Your task to perform on an android device: visit the assistant section in the google photos Image 0: 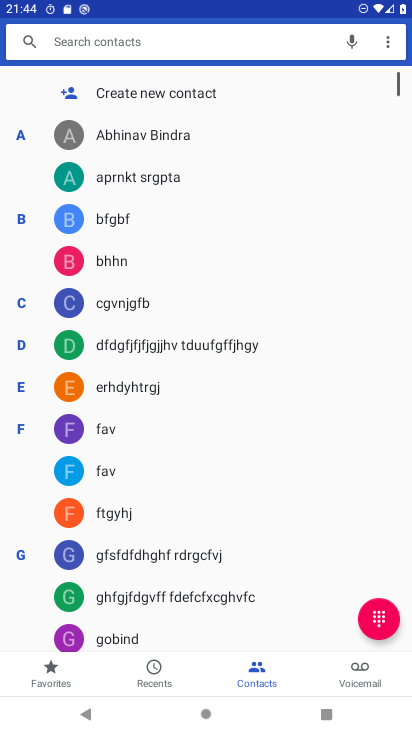
Step 0: press home button
Your task to perform on an android device: visit the assistant section in the google photos Image 1: 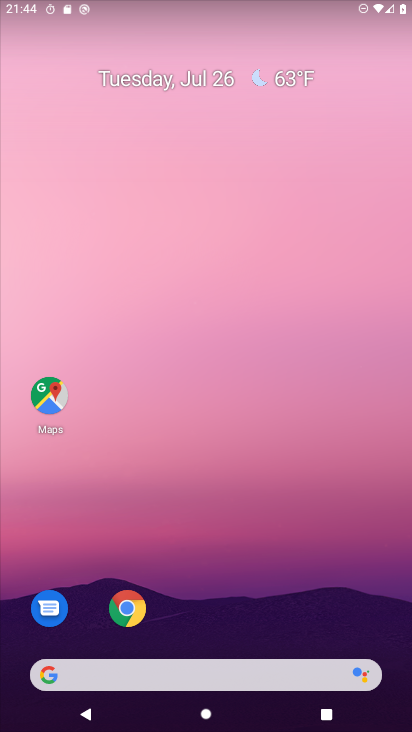
Step 1: drag from (97, 464) to (196, 132)
Your task to perform on an android device: visit the assistant section in the google photos Image 2: 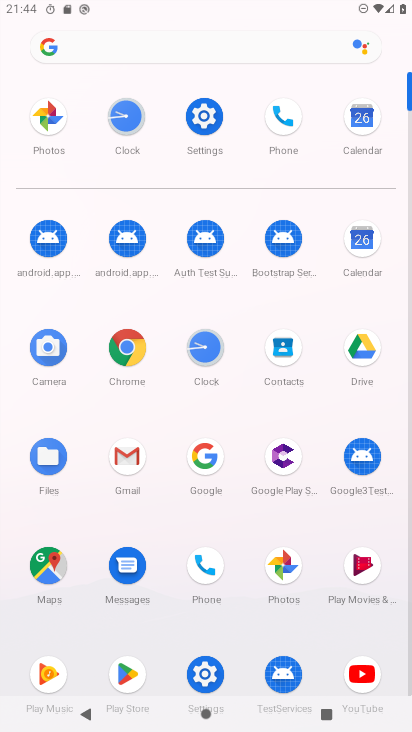
Step 2: click (274, 573)
Your task to perform on an android device: visit the assistant section in the google photos Image 3: 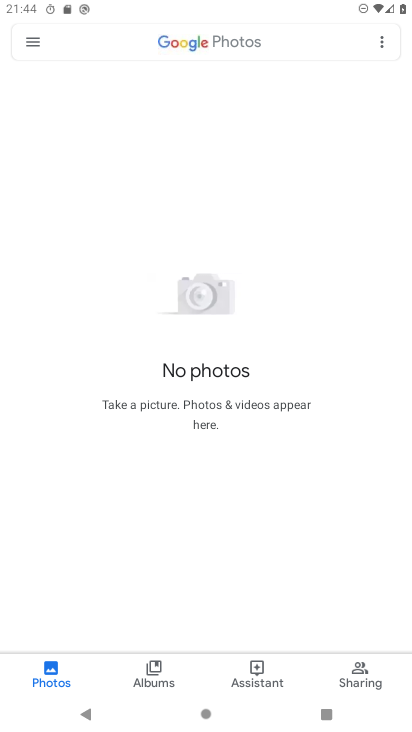
Step 3: click (267, 678)
Your task to perform on an android device: visit the assistant section in the google photos Image 4: 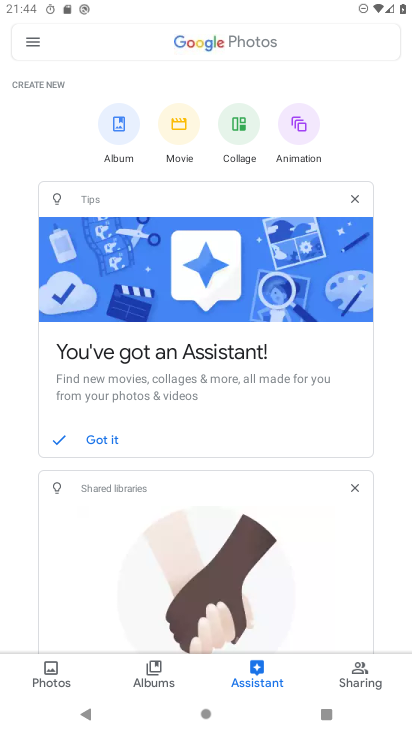
Step 4: task complete